Your task to perform on an android device: install app "LinkedIn" Image 0: 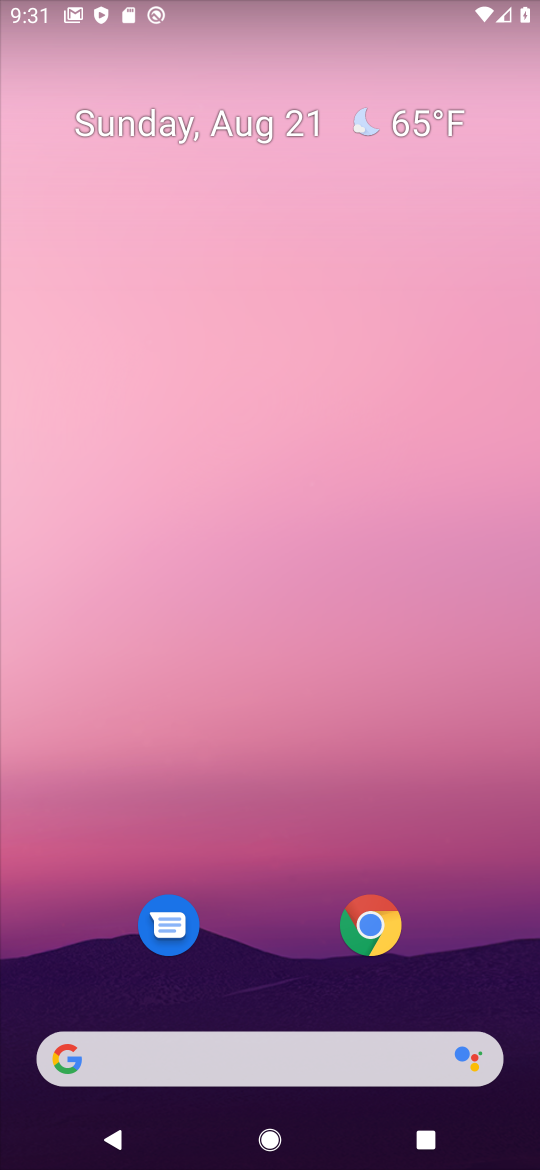
Step 0: drag from (302, 937) to (281, 81)
Your task to perform on an android device: install app "LinkedIn" Image 1: 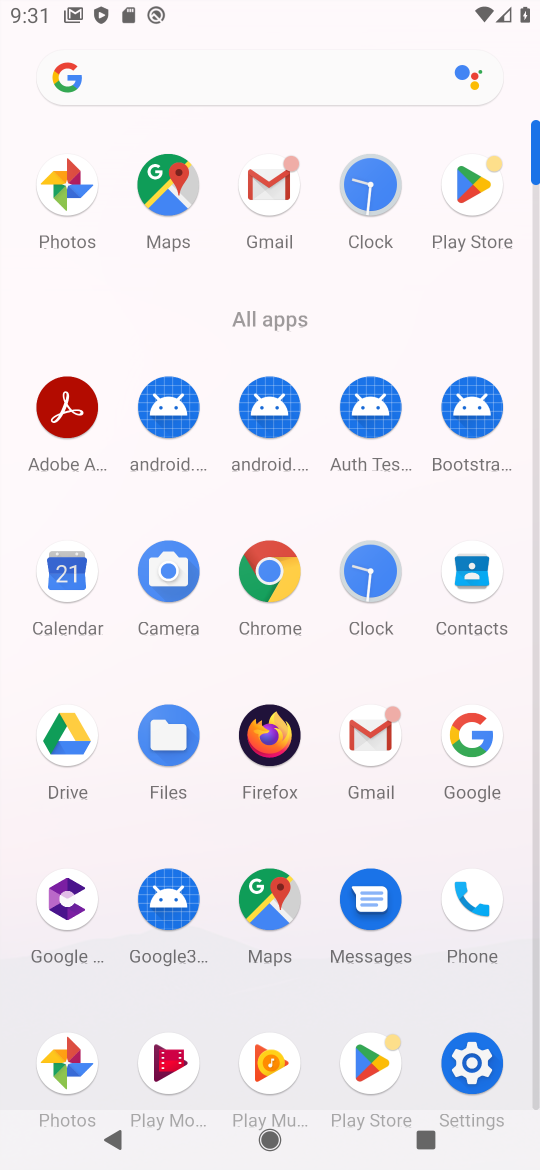
Step 1: click (459, 178)
Your task to perform on an android device: install app "LinkedIn" Image 2: 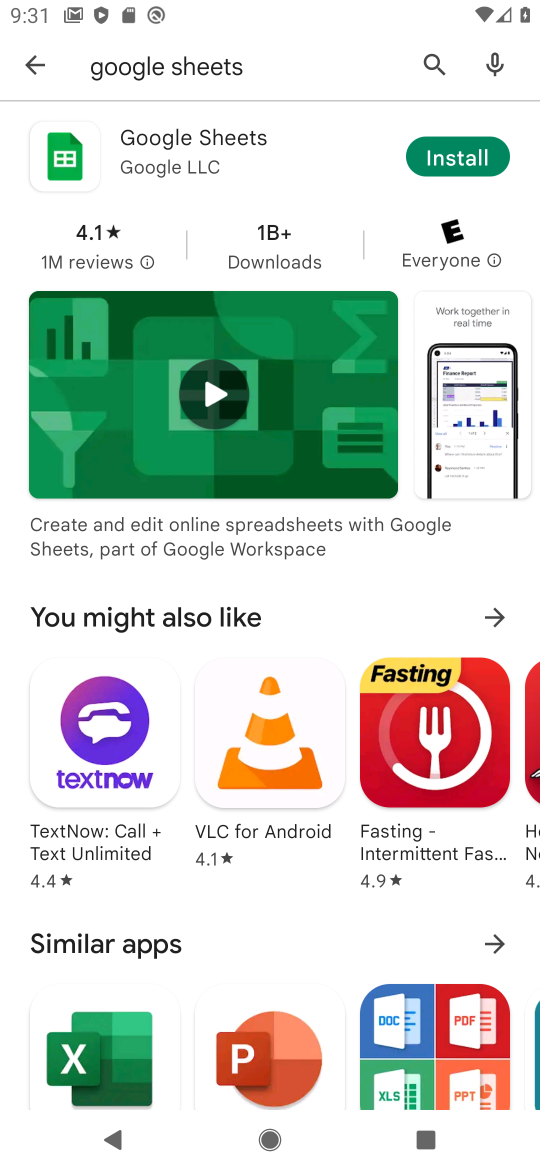
Step 2: click (432, 71)
Your task to perform on an android device: install app "LinkedIn" Image 3: 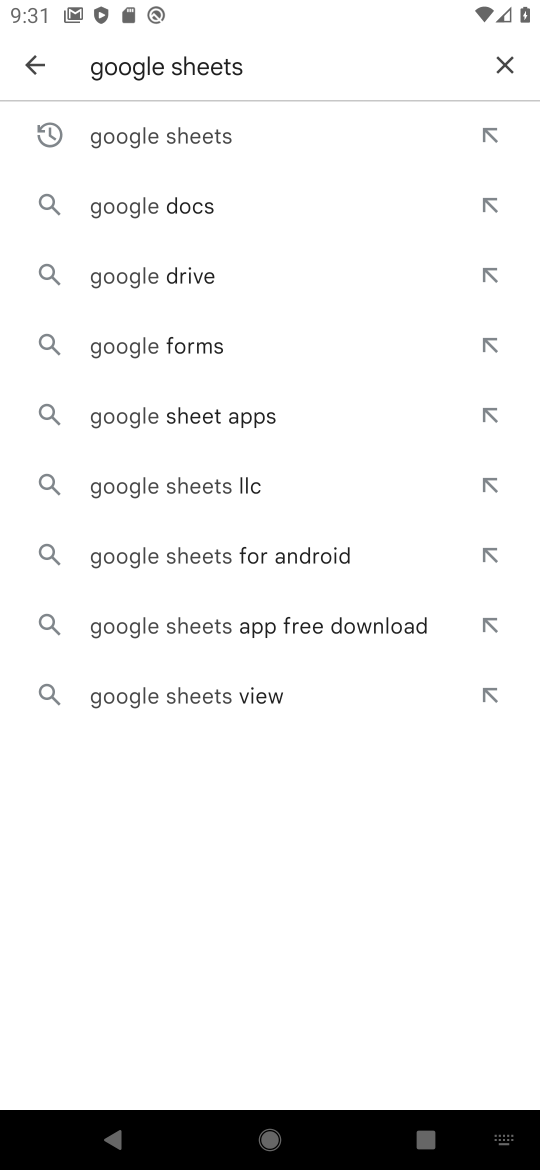
Step 3: click (503, 64)
Your task to perform on an android device: install app "LinkedIn" Image 4: 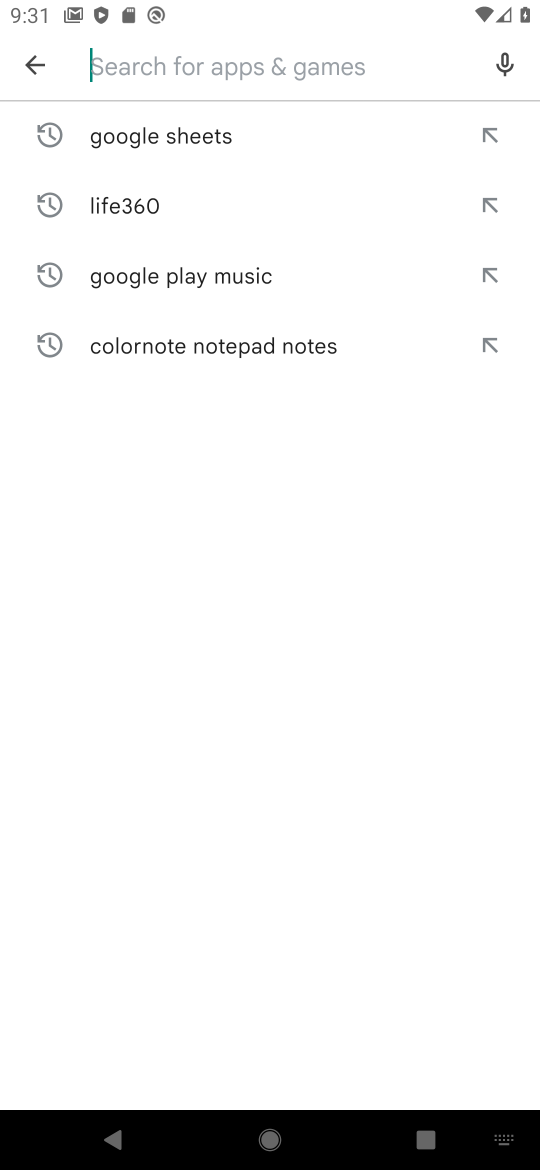
Step 4: click (202, 58)
Your task to perform on an android device: install app "LinkedIn" Image 5: 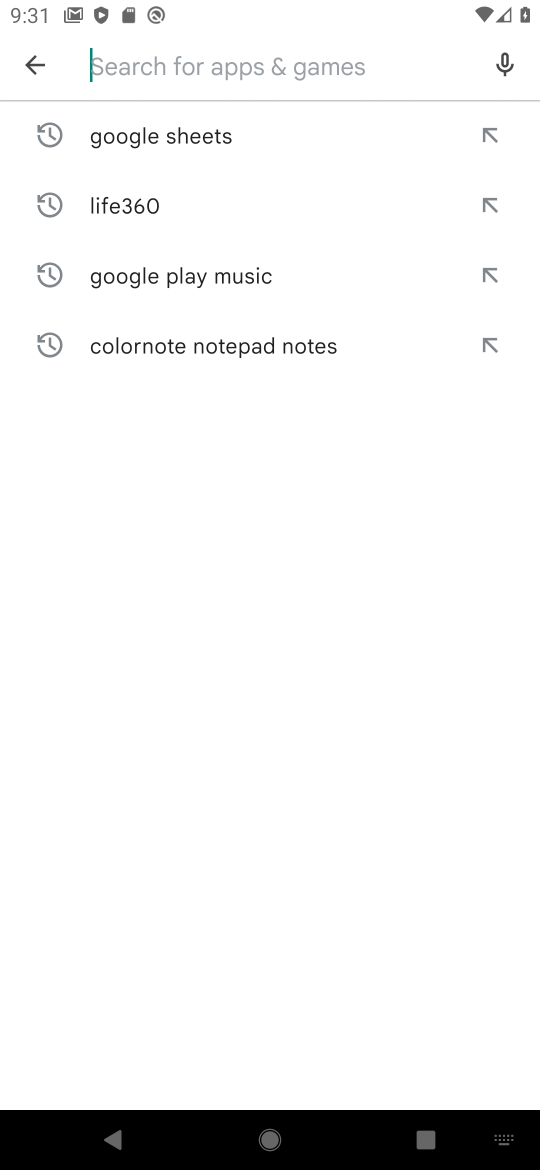
Step 5: click (200, 57)
Your task to perform on an android device: install app "LinkedIn" Image 6: 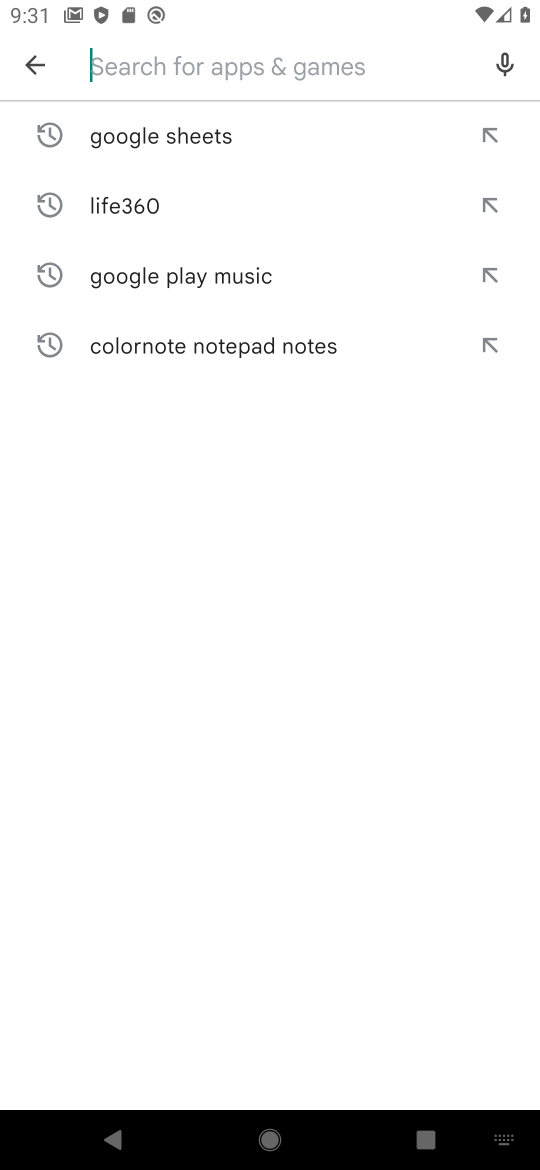
Step 6: type "LinkedIn"
Your task to perform on an android device: install app "LinkedIn" Image 7: 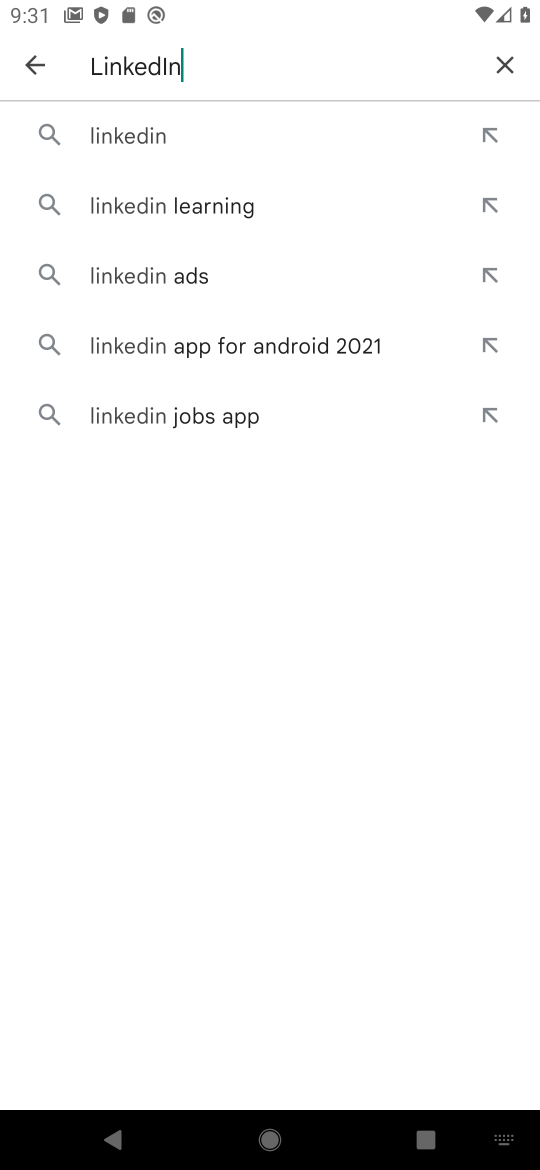
Step 7: click (142, 119)
Your task to perform on an android device: install app "LinkedIn" Image 8: 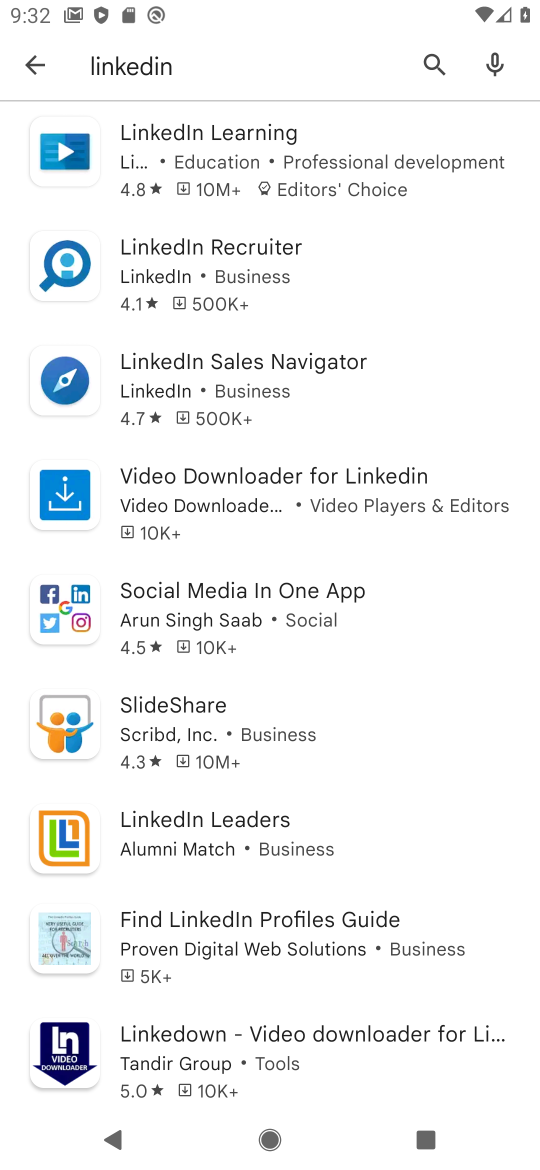
Step 8: task complete